Your task to perform on an android device: manage bookmarks in the chrome app Image 0: 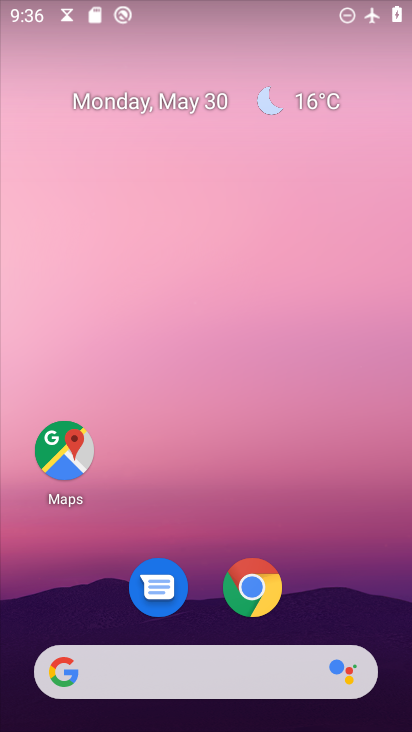
Step 0: press home button
Your task to perform on an android device: manage bookmarks in the chrome app Image 1: 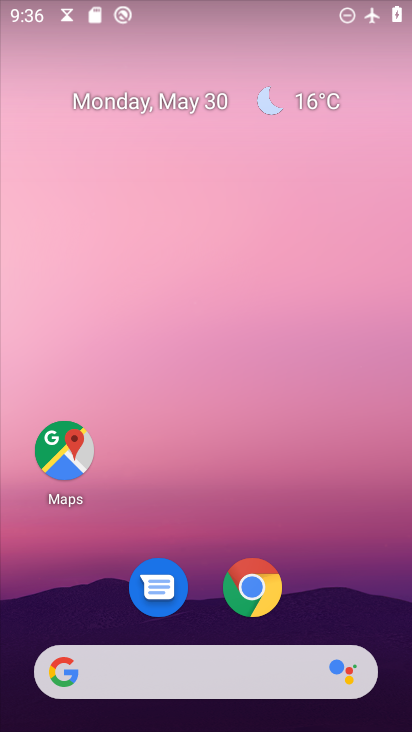
Step 1: click (258, 598)
Your task to perform on an android device: manage bookmarks in the chrome app Image 2: 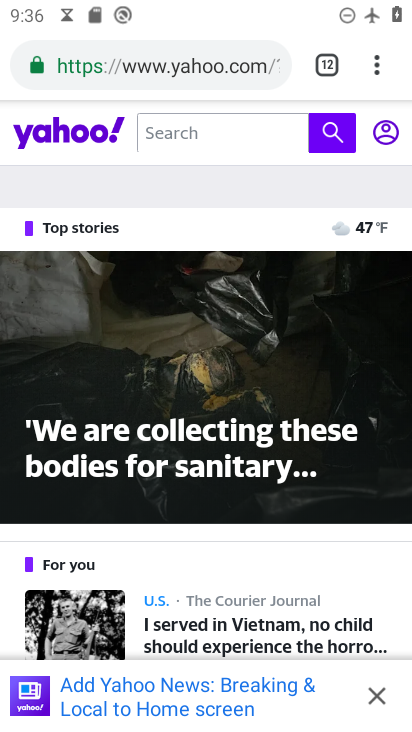
Step 2: drag from (376, 61) to (236, 249)
Your task to perform on an android device: manage bookmarks in the chrome app Image 3: 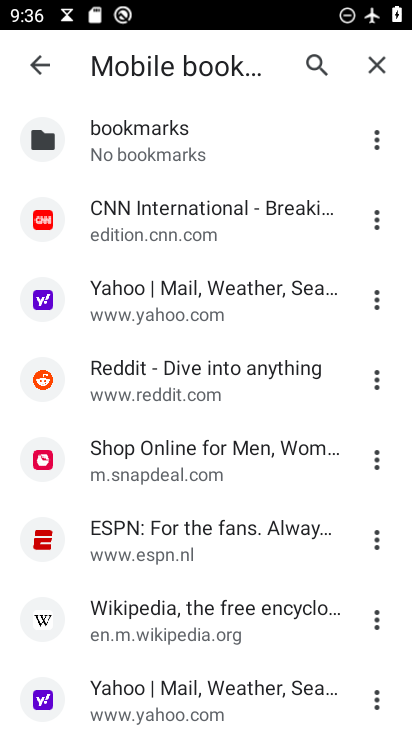
Step 3: click (379, 221)
Your task to perform on an android device: manage bookmarks in the chrome app Image 4: 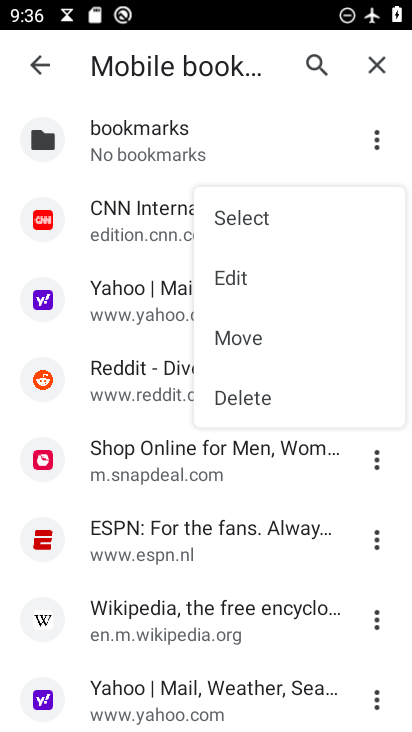
Step 4: click (234, 336)
Your task to perform on an android device: manage bookmarks in the chrome app Image 5: 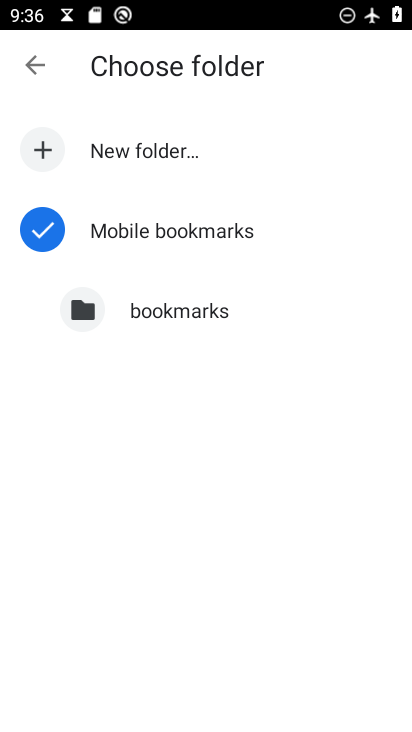
Step 5: click (139, 316)
Your task to perform on an android device: manage bookmarks in the chrome app Image 6: 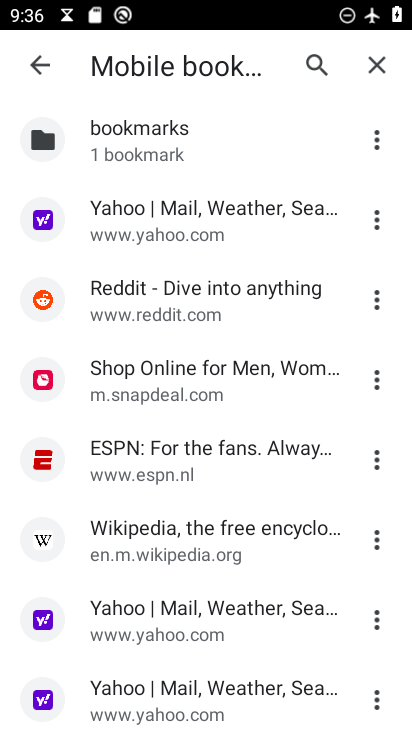
Step 6: task complete